Your task to perform on an android device: Open network settings Image 0: 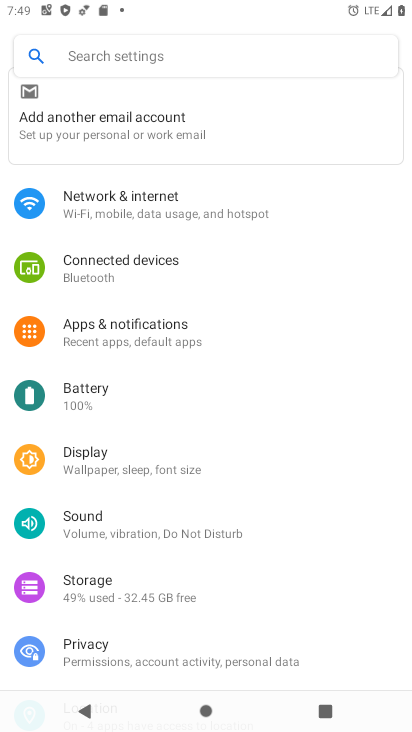
Step 0: press home button
Your task to perform on an android device: Open network settings Image 1: 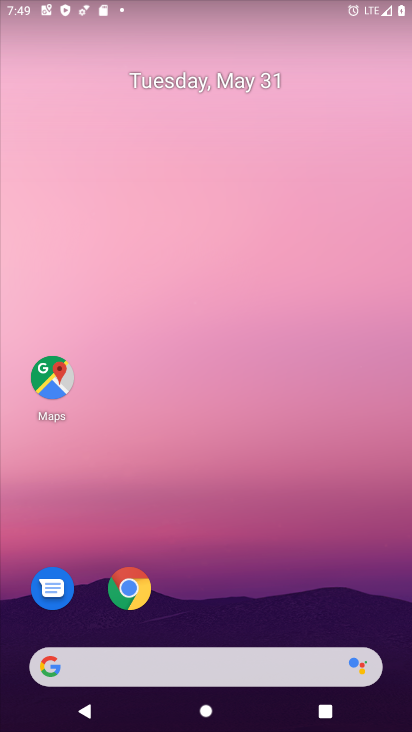
Step 1: drag from (203, 556) to (286, 209)
Your task to perform on an android device: Open network settings Image 2: 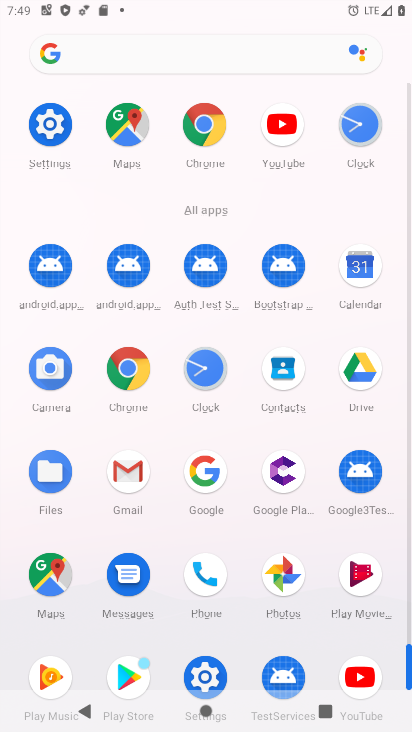
Step 2: click (43, 126)
Your task to perform on an android device: Open network settings Image 3: 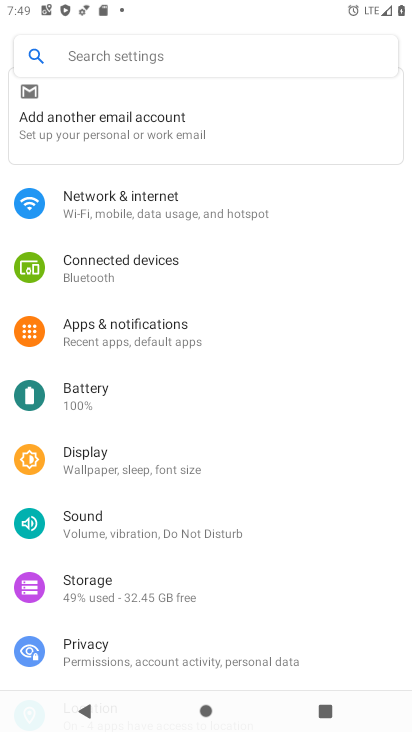
Step 3: click (133, 219)
Your task to perform on an android device: Open network settings Image 4: 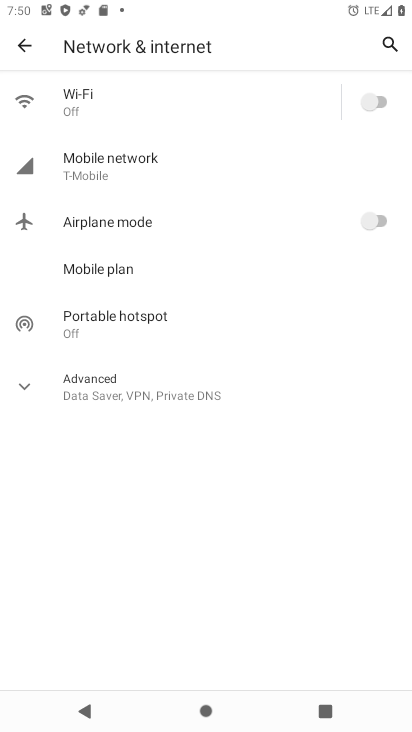
Step 4: task complete